Your task to perform on an android device: turn on translation in the chrome app Image 0: 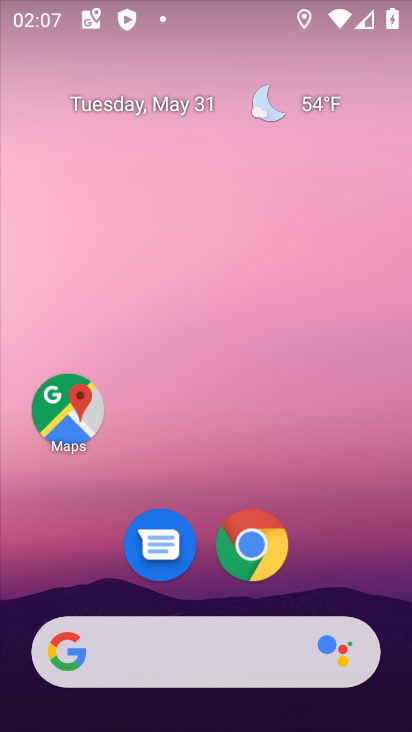
Step 0: click (263, 529)
Your task to perform on an android device: turn on translation in the chrome app Image 1: 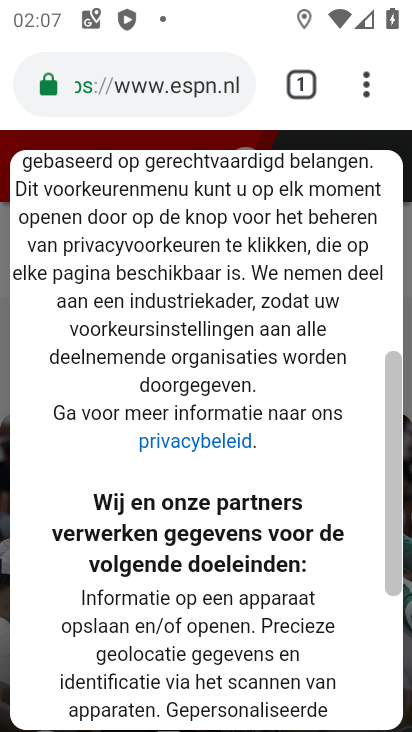
Step 1: click (358, 80)
Your task to perform on an android device: turn on translation in the chrome app Image 2: 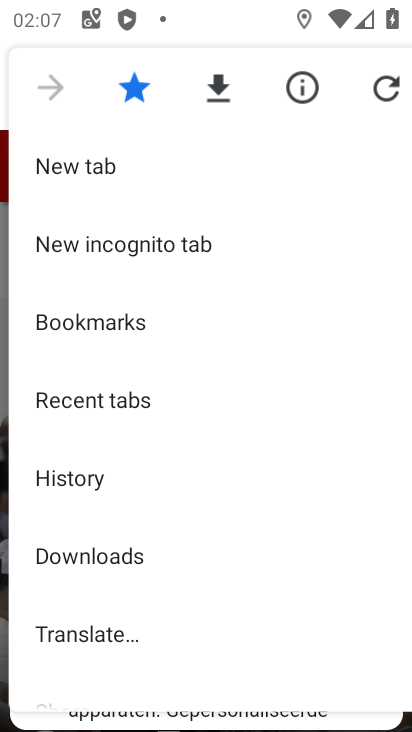
Step 2: drag from (301, 618) to (288, 267)
Your task to perform on an android device: turn on translation in the chrome app Image 3: 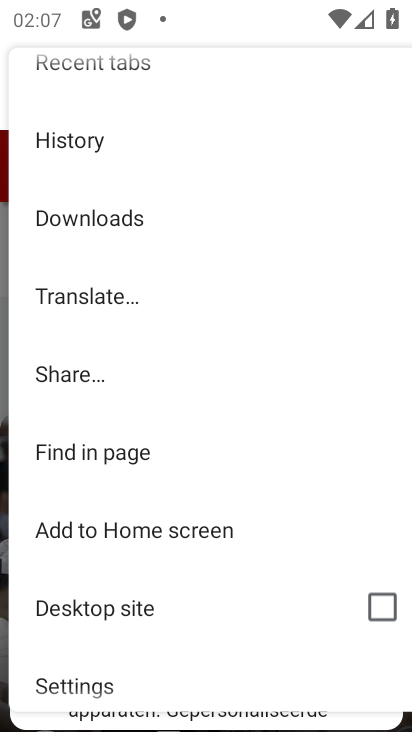
Step 3: click (131, 682)
Your task to perform on an android device: turn on translation in the chrome app Image 4: 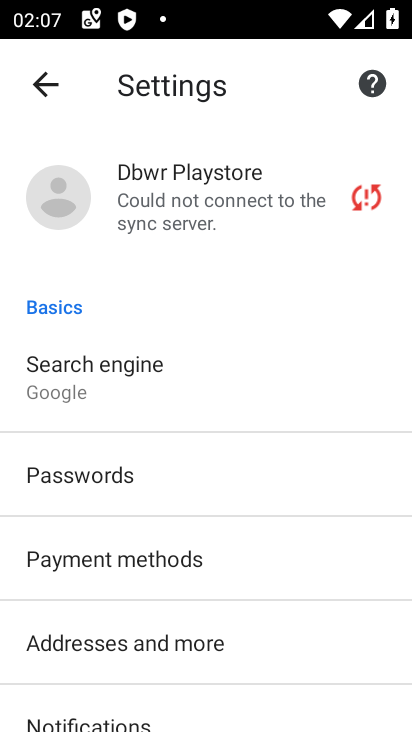
Step 4: drag from (246, 602) to (225, 198)
Your task to perform on an android device: turn on translation in the chrome app Image 5: 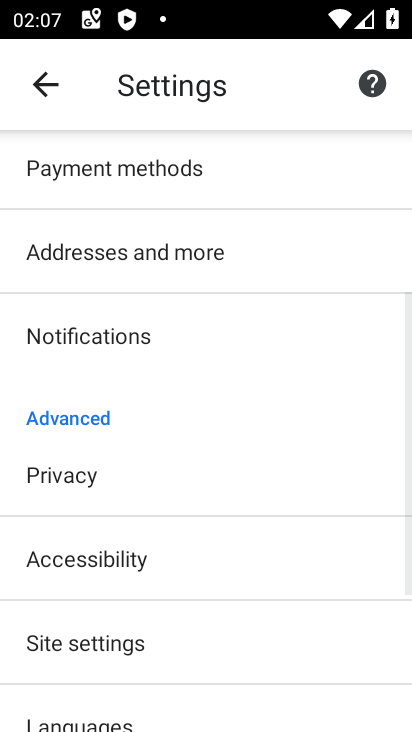
Step 5: drag from (229, 564) to (223, 280)
Your task to perform on an android device: turn on translation in the chrome app Image 6: 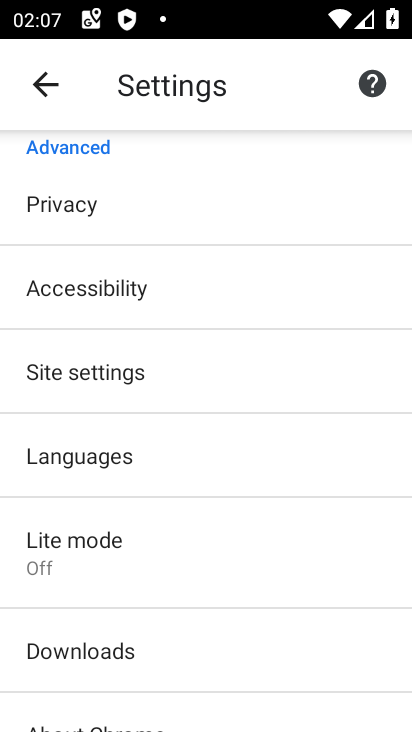
Step 6: click (175, 472)
Your task to perform on an android device: turn on translation in the chrome app Image 7: 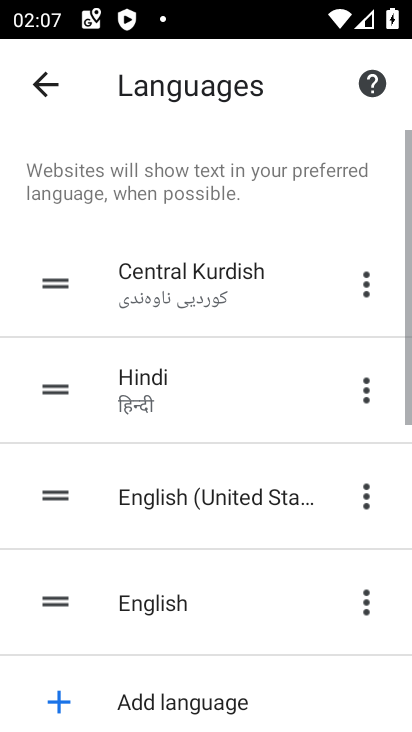
Step 7: drag from (244, 663) to (227, 385)
Your task to perform on an android device: turn on translation in the chrome app Image 8: 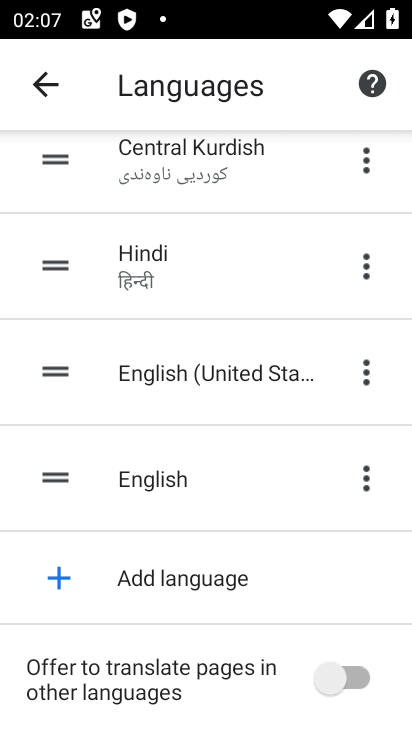
Step 8: click (334, 688)
Your task to perform on an android device: turn on translation in the chrome app Image 9: 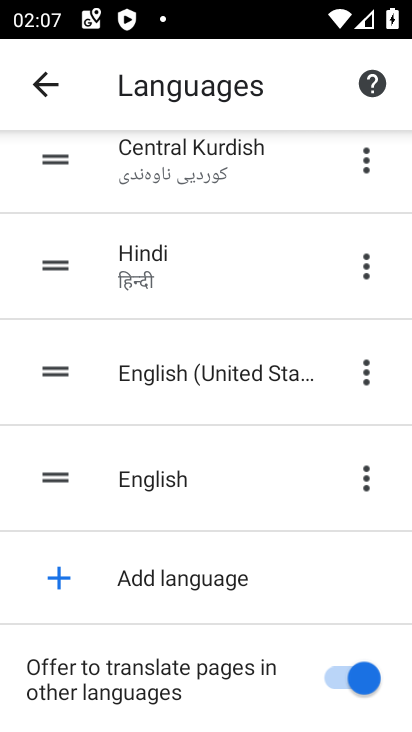
Step 9: task complete